Your task to perform on an android device: open app "PUBG MOBILE" Image 0: 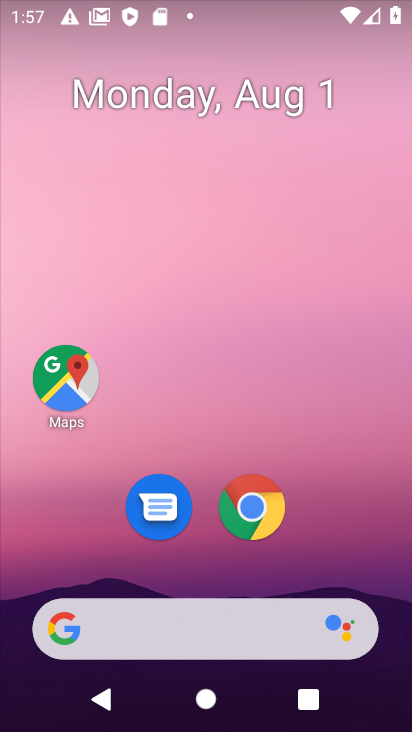
Step 0: drag from (209, 555) to (290, 6)
Your task to perform on an android device: open app "PUBG MOBILE" Image 1: 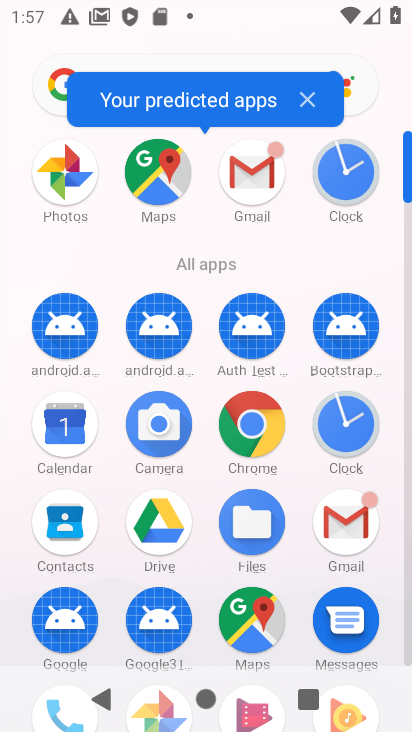
Step 1: drag from (187, 538) to (248, 34)
Your task to perform on an android device: open app "PUBG MOBILE" Image 2: 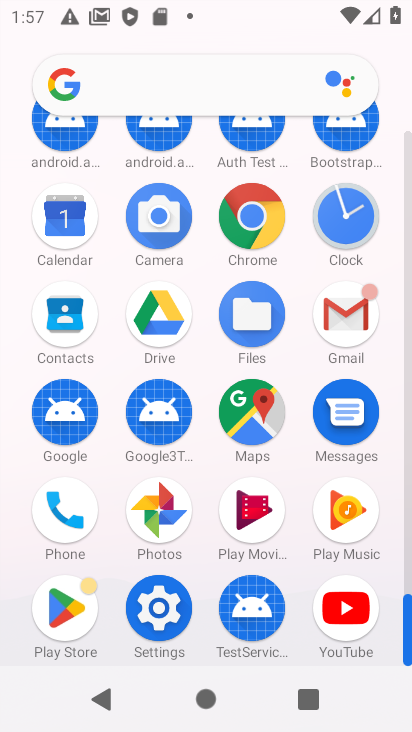
Step 2: click (37, 604)
Your task to perform on an android device: open app "PUBG MOBILE" Image 3: 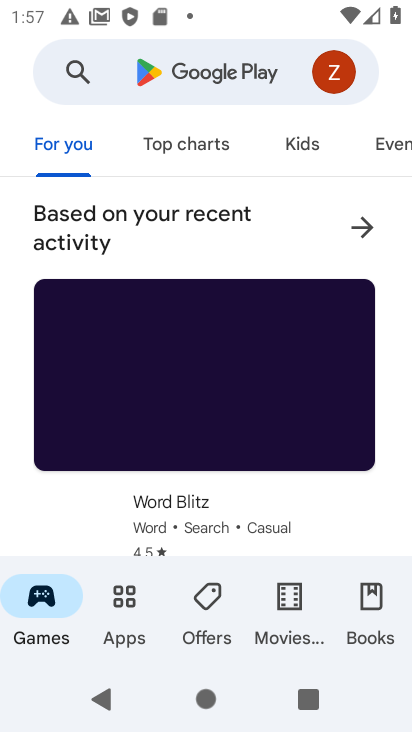
Step 3: click (165, 74)
Your task to perform on an android device: open app "PUBG MOBILE" Image 4: 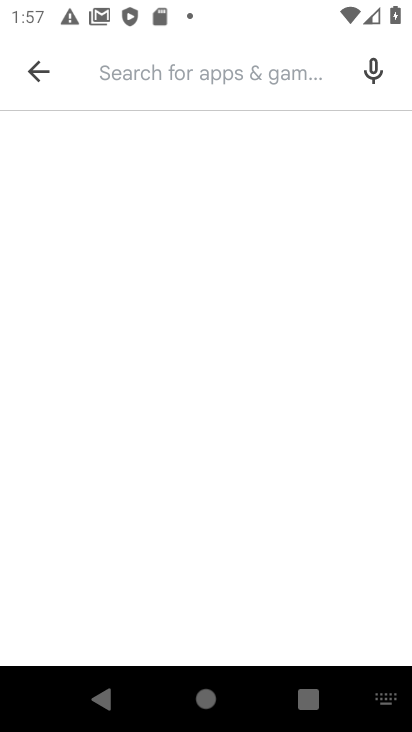
Step 4: type "pubg"
Your task to perform on an android device: open app "PUBG MOBILE" Image 5: 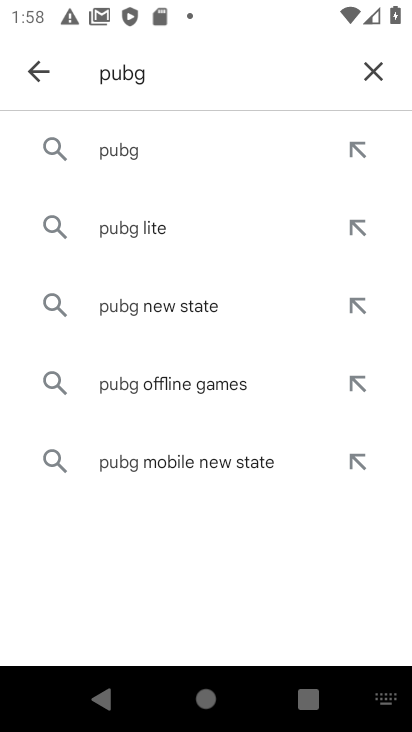
Step 5: click (120, 148)
Your task to perform on an android device: open app "PUBG MOBILE" Image 6: 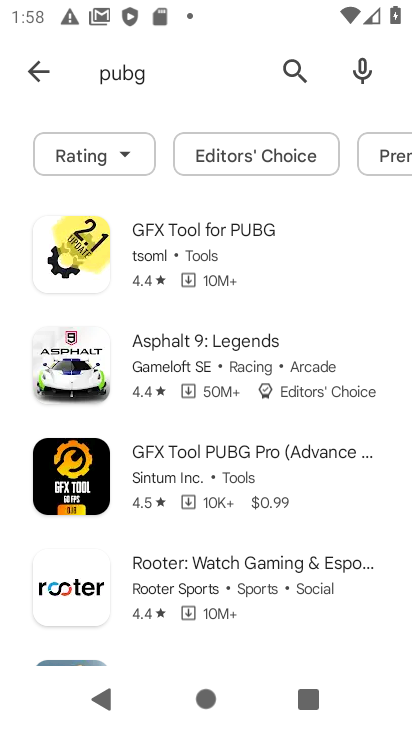
Step 6: task complete